Your task to perform on an android device: refresh tabs in the chrome app Image 0: 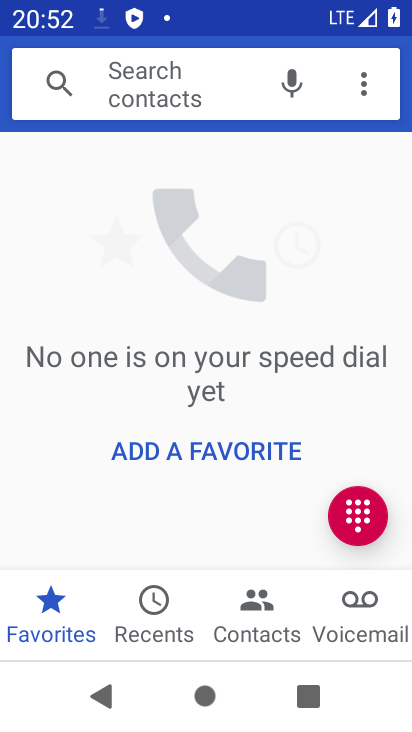
Step 0: press back button
Your task to perform on an android device: refresh tabs in the chrome app Image 1: 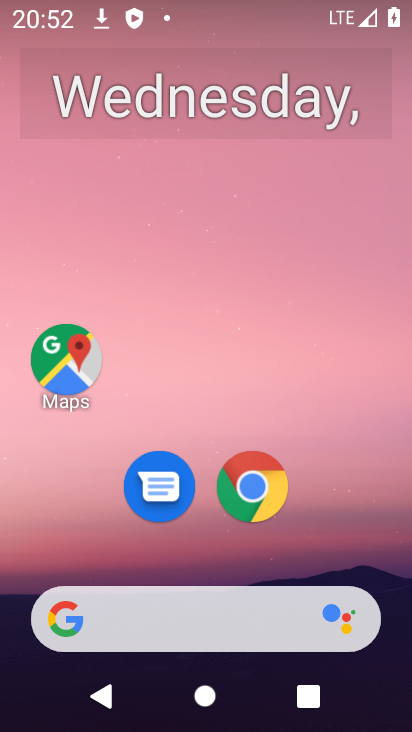
Step 1: click (228, 475)
Your task to perform on an android device: refresh tabs in the chrome app Image 2: 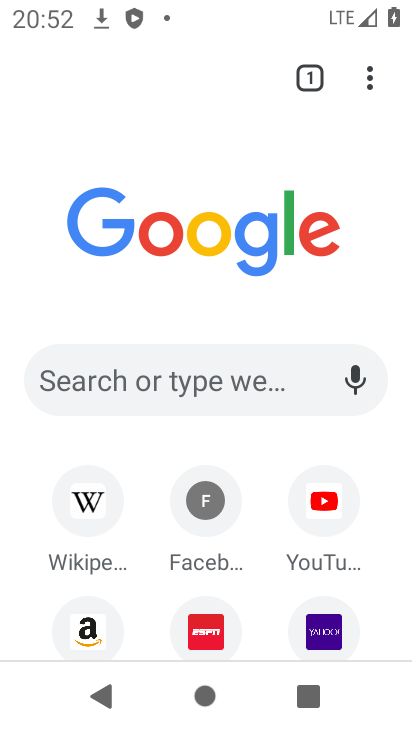
Step 2: click (365, 79)
Your task to perform on an android device: refresh tabs in the chrome app Image 3: 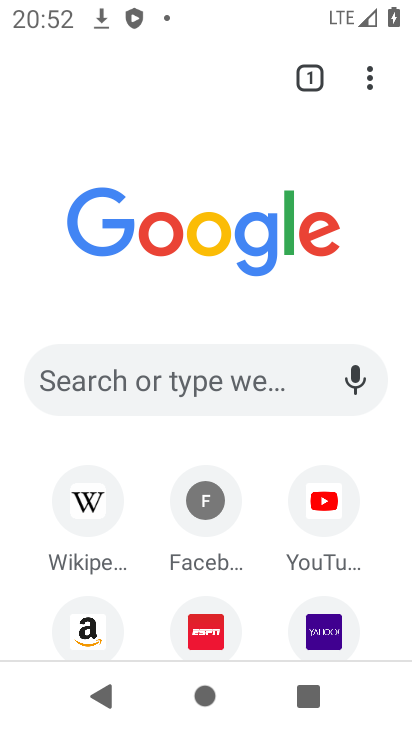
Step 3: task complete